Your task to perform on an android device: Check the news Image 0: 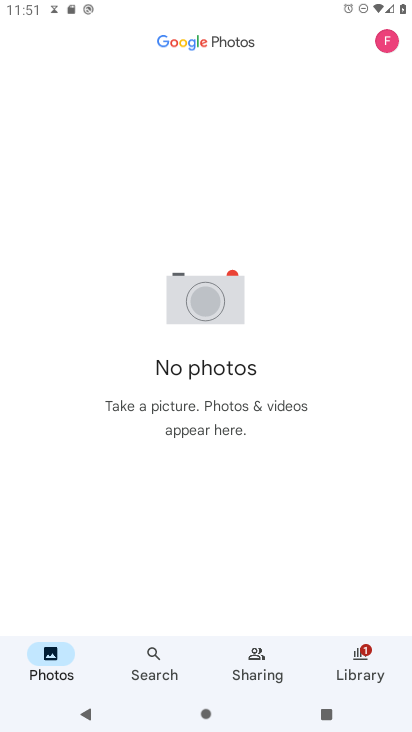
Step 0: press home button
Your task to perform on an android device: Check the news Image 1: 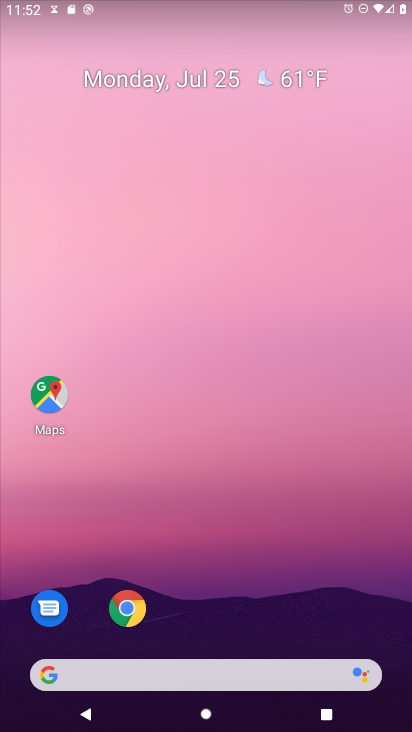
Step 1: click (128, 606)
Your task to perform on an android device: Check the news Image 2: 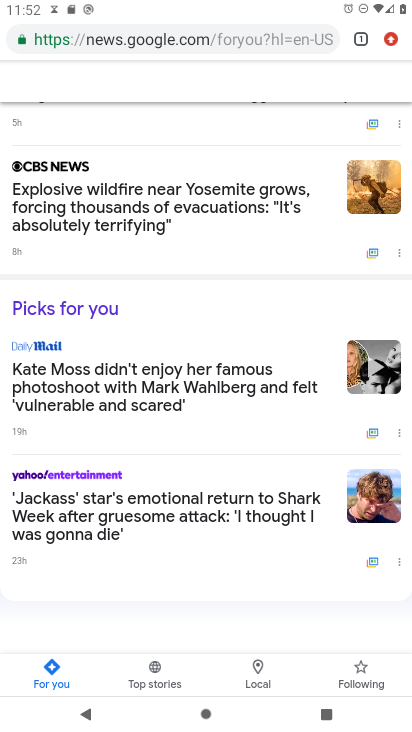
Step 2: click (260, 37)
Your task to perform on an android device: Check the news Image 3: 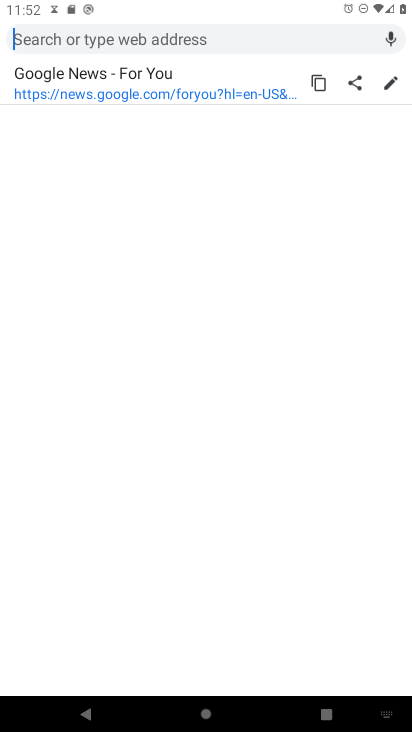
Step 3: type "news"
Your task to perform on an android device: Check the news Image 4: 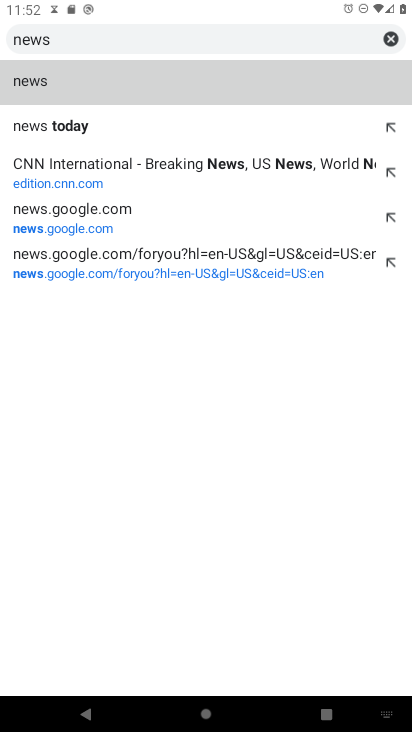
Step 4: click (87, 131)
Your task to perform on an android device: Check the news Image 5: 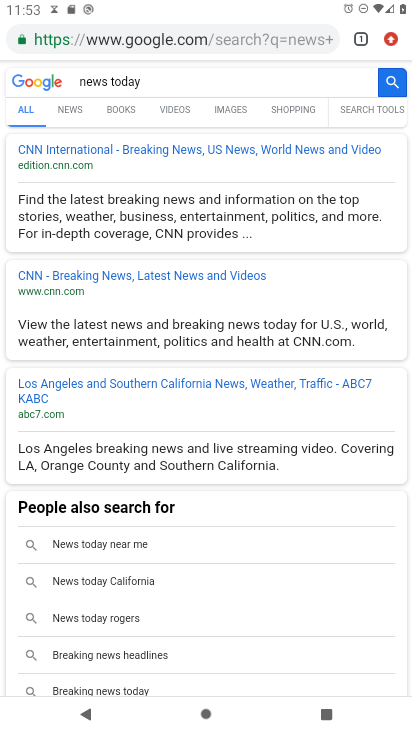
Step 5: click (99, 152)
Your task to perform on an android device: Check the news Image 6: 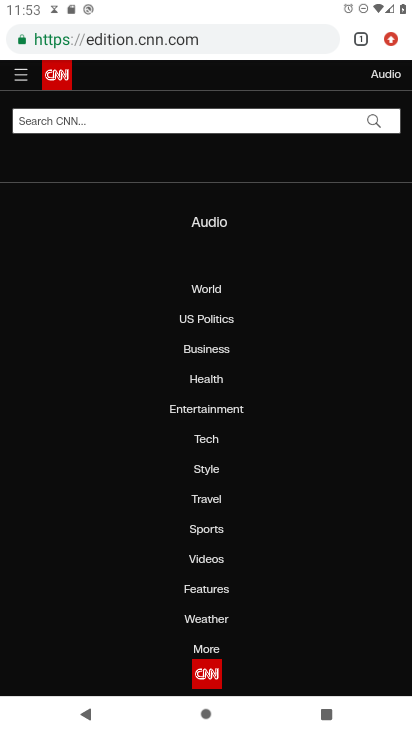
Step 6: task complete